Your task to perform on an android device: Go to eBay Image 0: 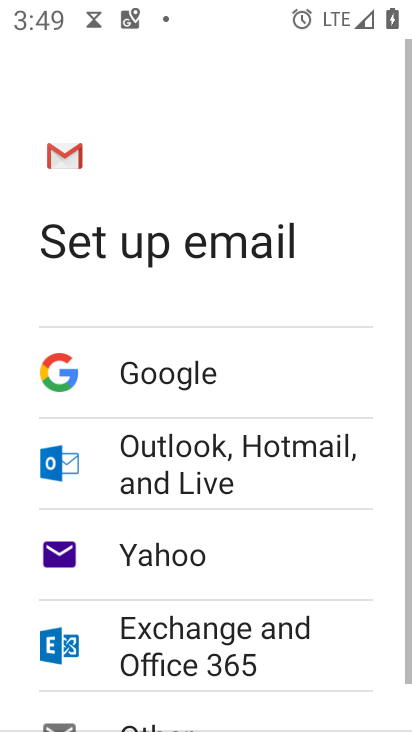
Step 0: press home button
Your task to perform on an android device: Go to eBay Image 1: 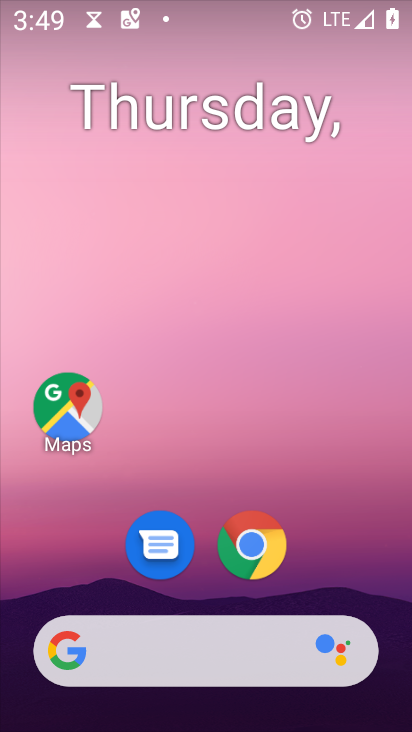
Step 1: click (254, 551)
Your task to perform on an android device: Go to eBay Image 2: 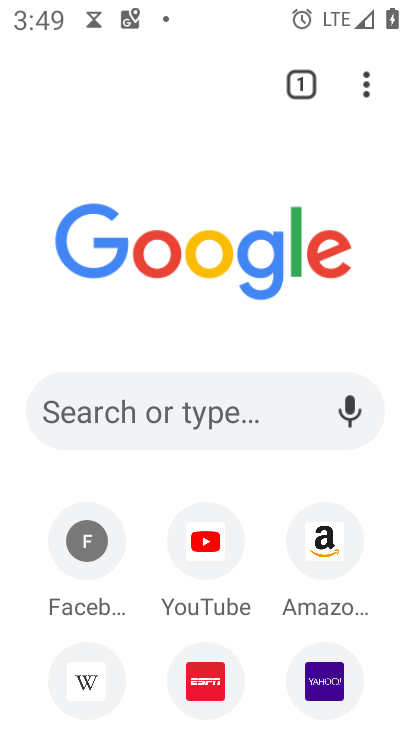
Step 2: drag from (371, 595) to (328, 307)
Your task to perform on an android device: Go to eBay Image 3: 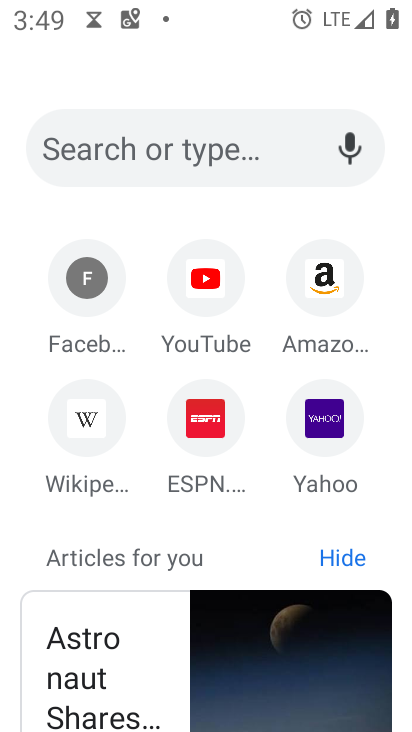
Step 3: click (188, 155)
Your task to perform on an android device: Go to eBay Image 4: 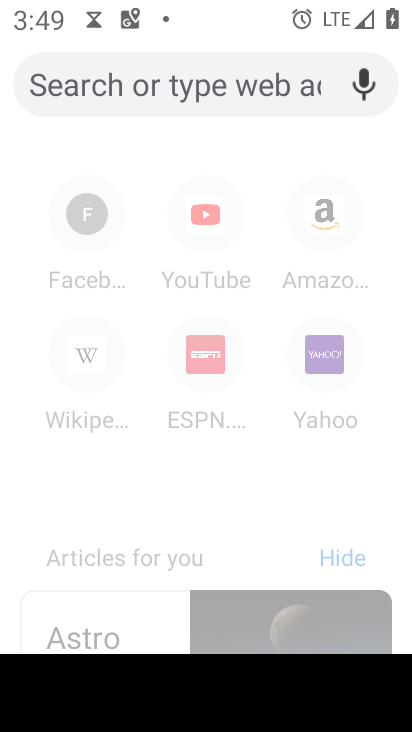
Step 4: type "abay"
Your task to perform on an android device: Go to eBay Image 5: 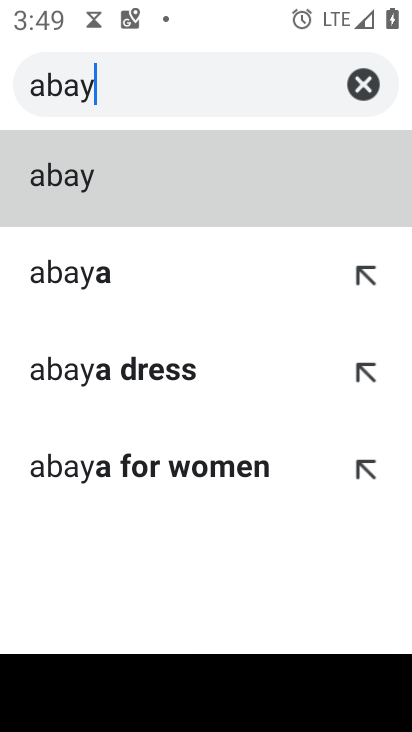
Step 5: click (366, 86)
Your task to perform on an android device: Go to eBay Image 6: 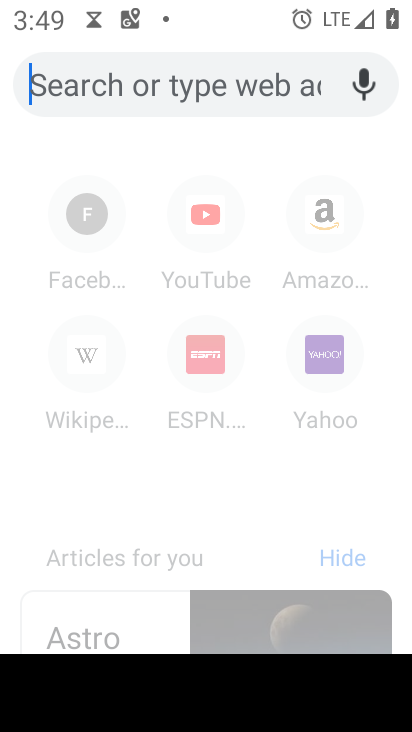
Step 6: type "ebay"
Your task to perform on an android device: Go to eBay Image 7: 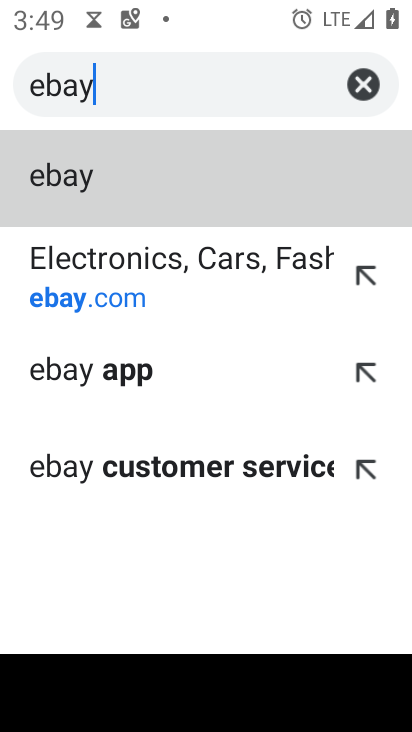
Step 7: click (59, 284)
Your task to perform on an android device: Go to eBay Image 8: 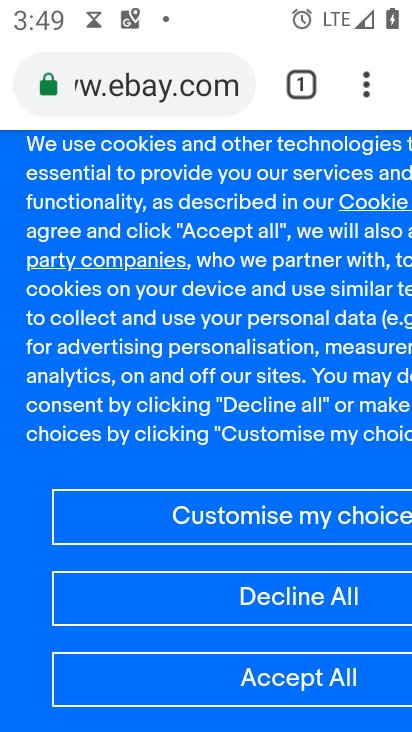
Step 8: task complete